Your task to perform on an android device: all mails in gmail Image 0: 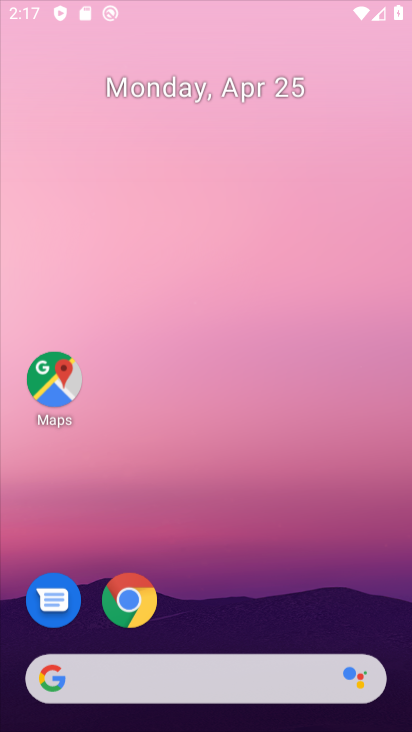
Step 0: click (359, 157)
Your task to perform on an android device: all mails in gmail Image 1: 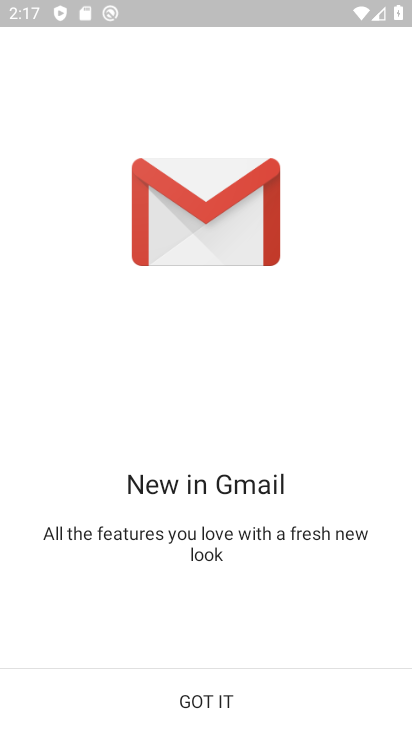
Step 1: click (230, 695)
Your task to perform on an android device: all mails in gmail Image 2: 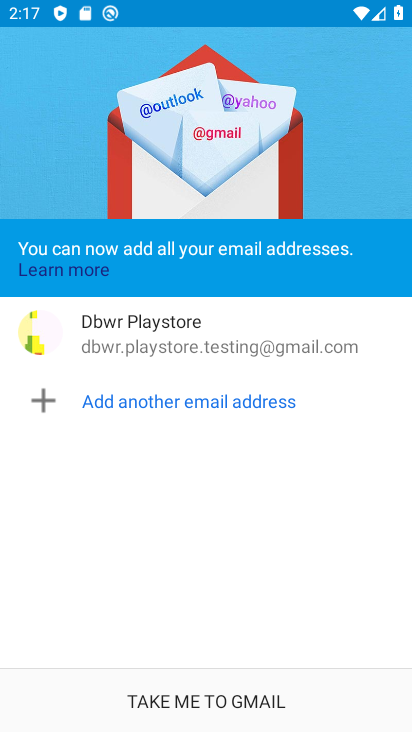
Step 2: click (229, 695)
Your task to perform on an android device: all mails in gmail Image 3: 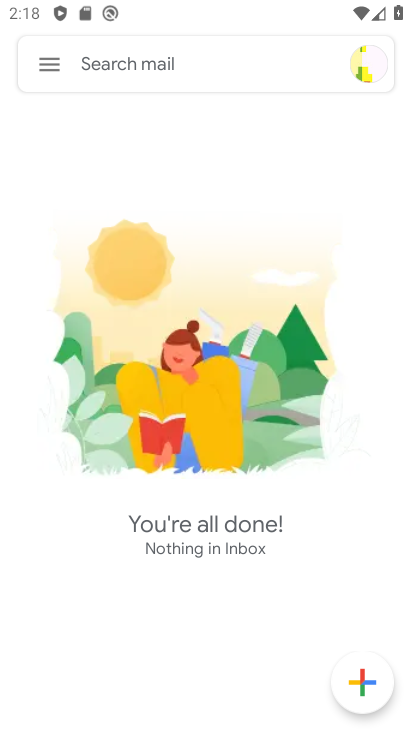
Step 3: click (49, 70)
Your task to perform on an android device: all mails in gmail Image 4: 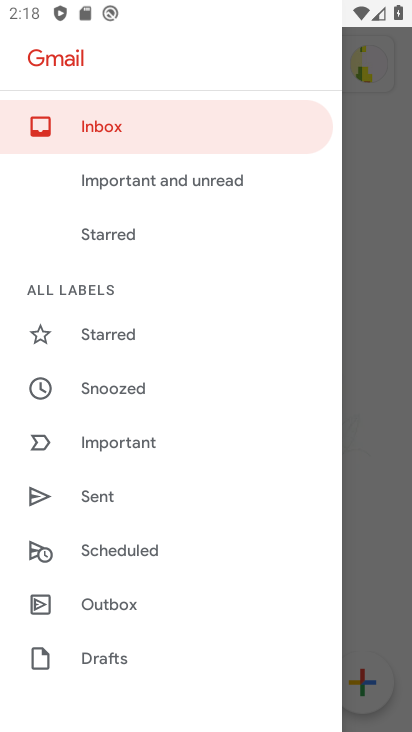
Step 4: drag from (162, 583) to (185, 358)
Your task to perform on an android device: all mails in gmail Image 5: 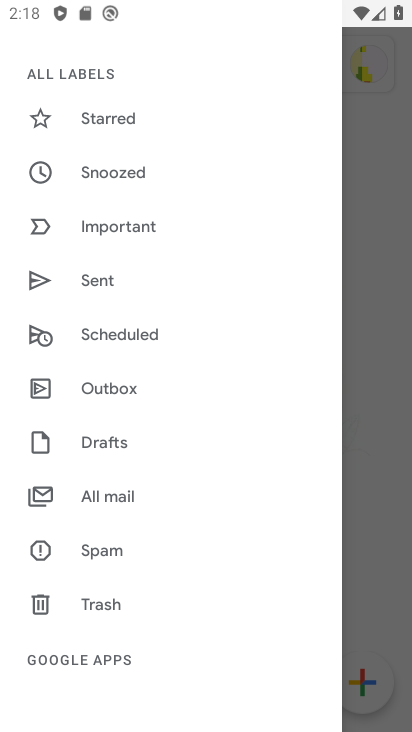
Step 5: click (134, 497)
Your task to perform on an android device: all mails in gmail Image 6: 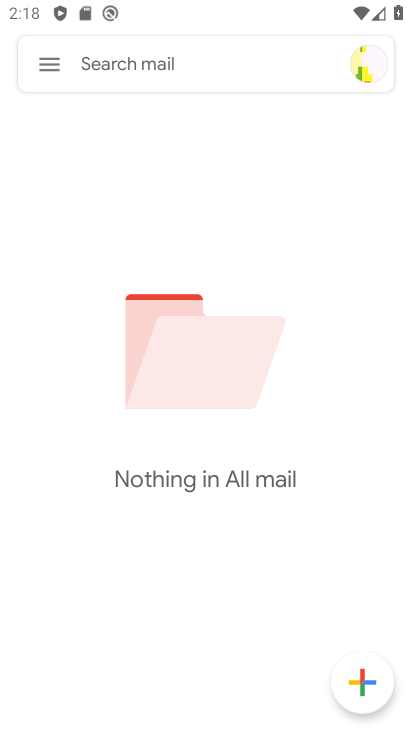
Step 6: task complete